Your task to perform on an android device: clear all cookies in the chrome app Image 0: 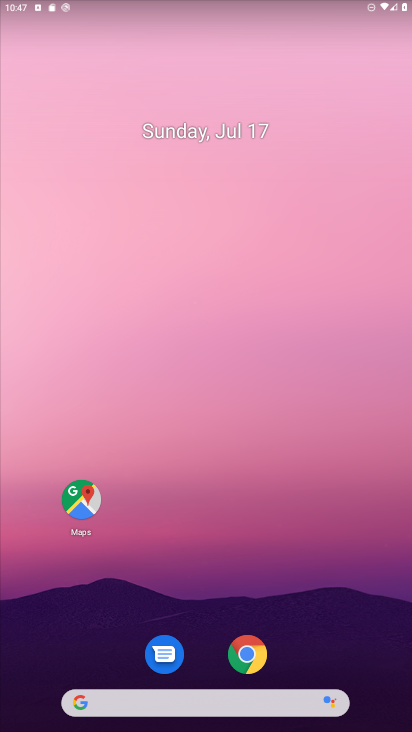
Step 0: click (267, 660)
Your task to perform on an android device: clear all cookies in the chrome app Image 1: 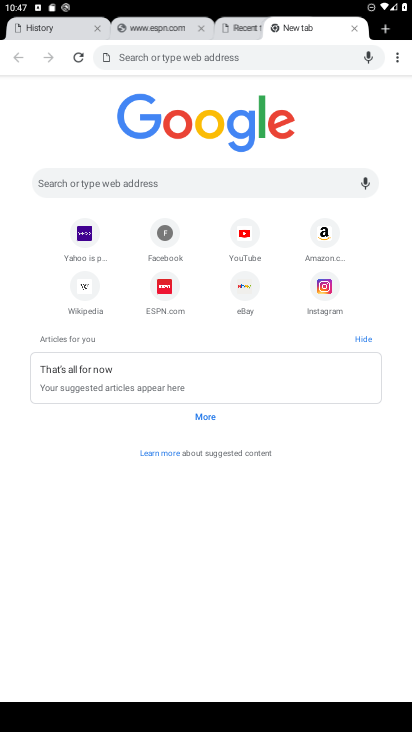
Step 1: click (394, 59)
Your task to perform on an android device: clear all cookies in the chrome app Image 2: 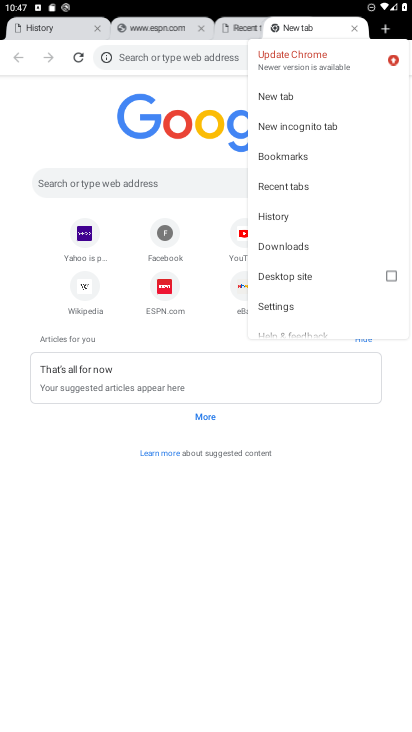
Step 2: click (290, 217)
Your task to perform on an android device: clear all cookies in the chrome app Image 3: 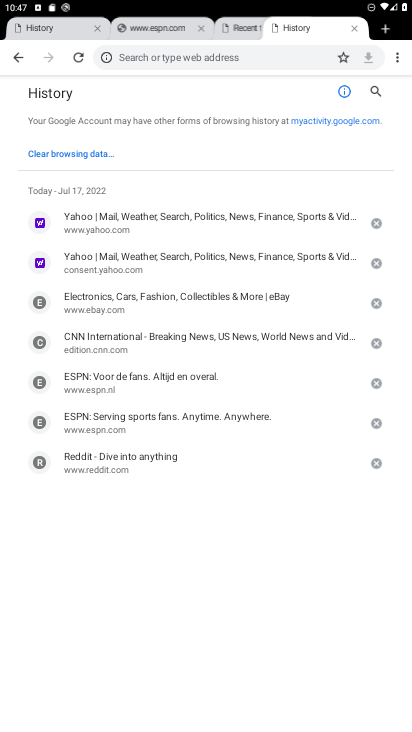
Step 3: click (40, 156)
Your task to perform on an android device: clear all cookies in the chrome app Image 4: 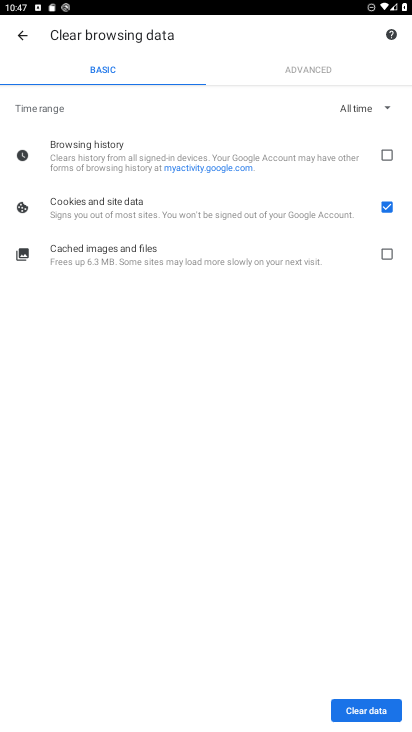
Step 4: click (381, 247)
Your task to perform on an android device: clear all cookies in the chrome app Image 5: 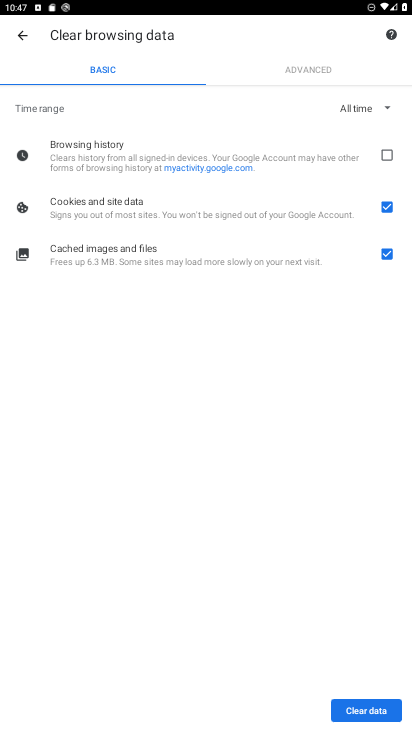
Step 5: click (386, 154)
Your task to perform on an android device: clear all cookies in the chrome app Image 6: 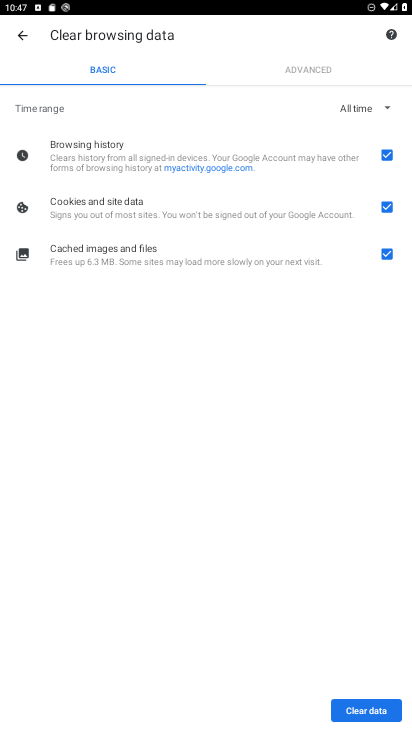
Step 6: click (379, 705)
Your task to perform on an android device: clear all cookies in the chrome app Image 7: 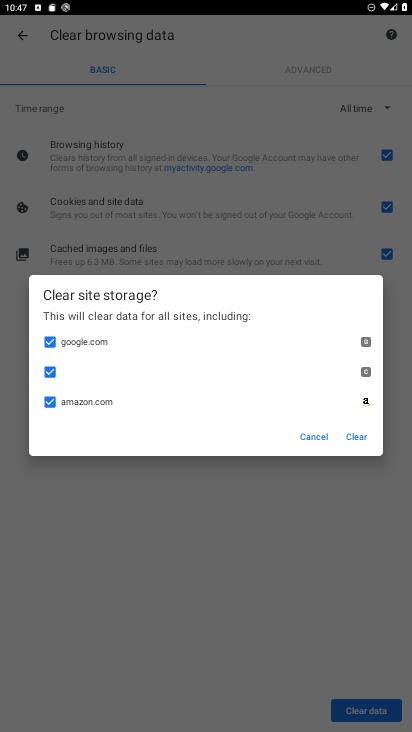
Step 7: click (357, 444)
Your task to perform on an android device: clear all cookies in the chrome app Image 8: 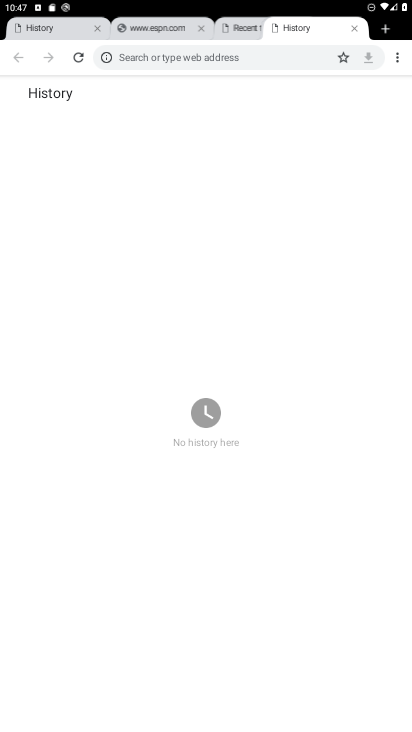
Step 8: task complete